Your task to perform on an android device: Go to Reddit.com Image 0: 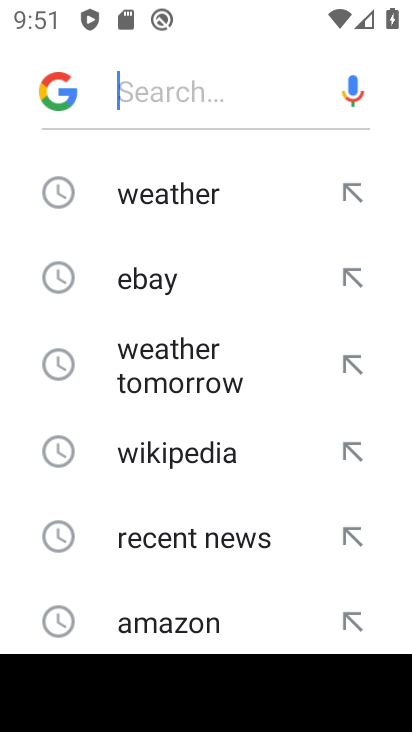
Step 0: press home button
Your task to perform on an android device: Go to Reddit.com Image 1: 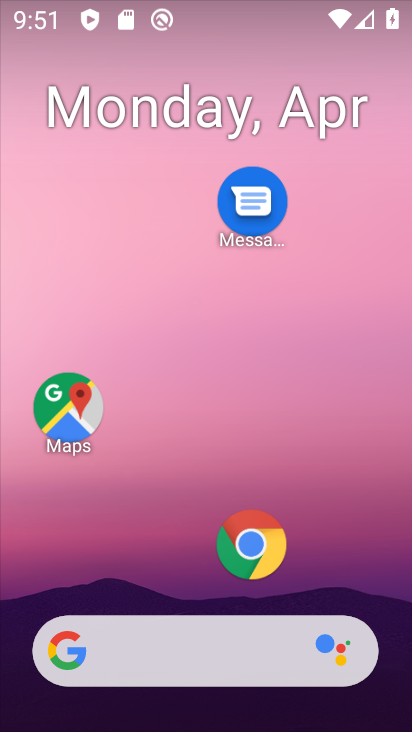
Step 1: drag from (193, 481) to (233, 33)
Your task to perform on an android device: Go to Reddit.com Image 2: 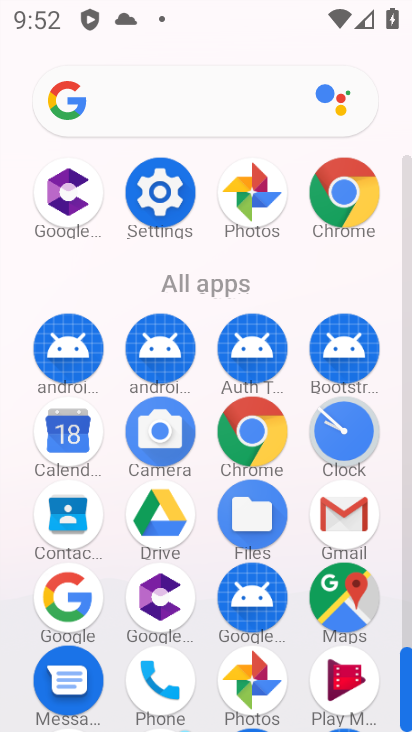
Step 2: click (251, 426)
Your task to perform on an android device: Go to Reddit.com Image 3: 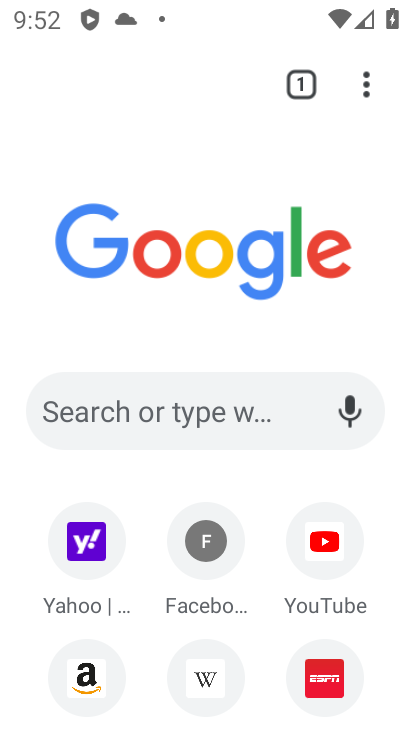
Step 3: drag from (262, 635) to (256, 234)
Your task to perform on an android device: Go to Reddit.com Image 4: 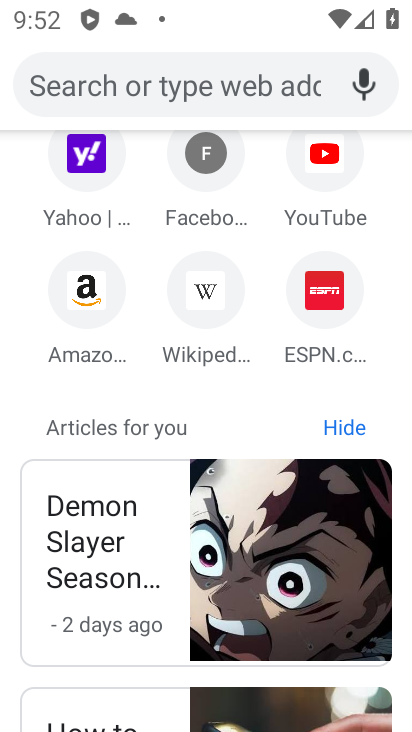
Step 4: drag from (258, 191) to (258, 528)
Your task to perform on an android device: Go to Reddit.com Image 5: 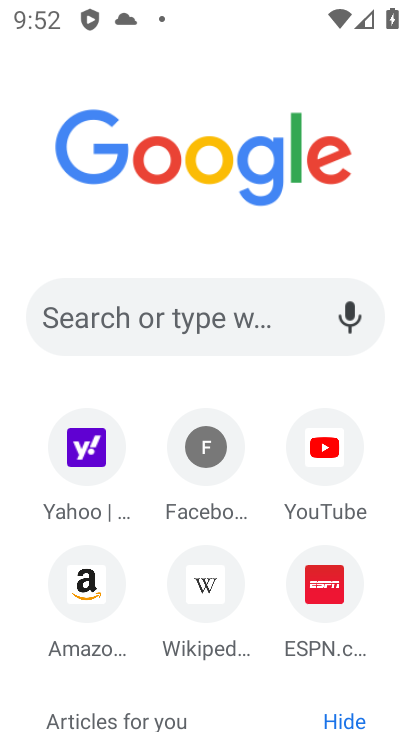
Step 5: click (144, 309)
Your task to perform on an android device: Go to Reddit.com Image 6: 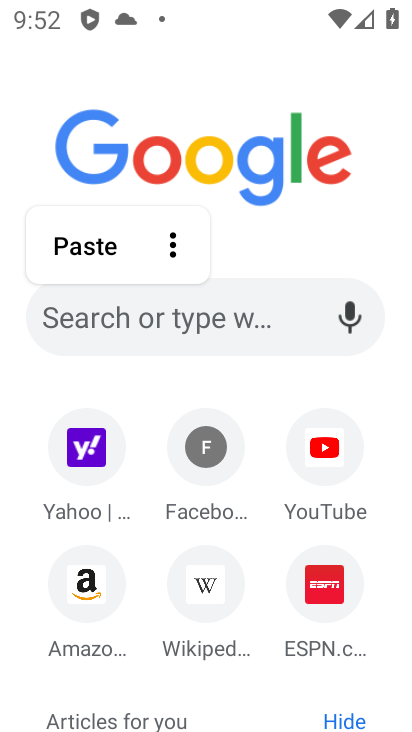
Step 6: type "reddit.com"
Your task to perform on an android device: Go to Reddit.com Image 7: 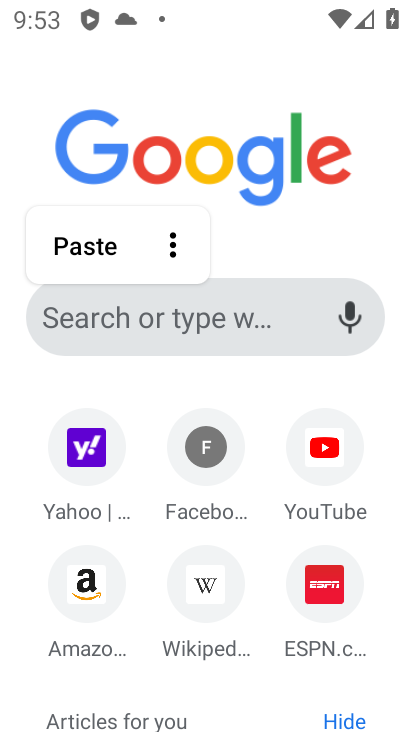
Step 7: click (133, 302)
Your task to perform on an android device: Go to Reddit.com Image 8: 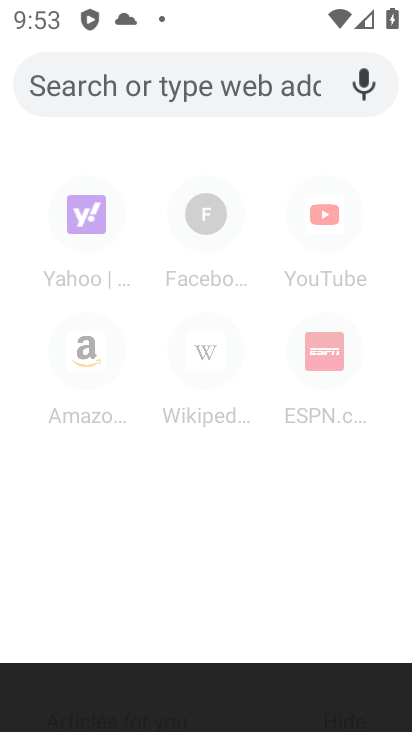
Step 8: click (127, 321)
Your task to perform on an android device: Go to Reddit.com Image 9: 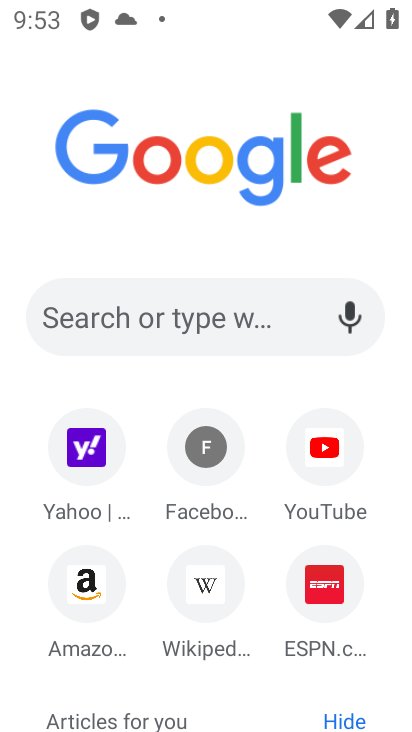
Step 9: click (107, 311)
Your task to perform on an android device: Go to Reddit.com Image 10: 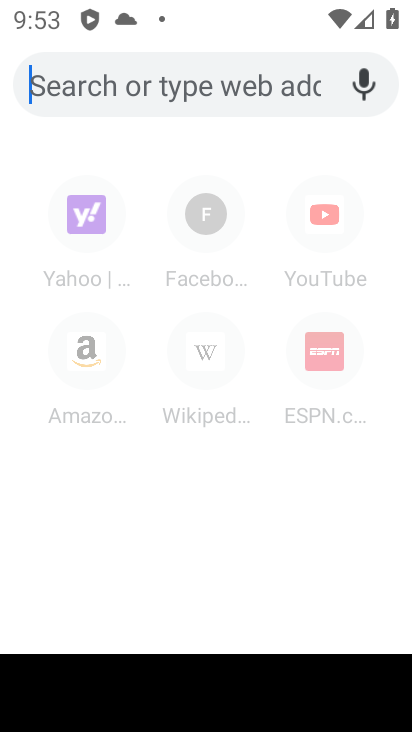
Step 10: type "reddit.com"
Your task to perform on an android device: Go to Reddit.com Image 11: 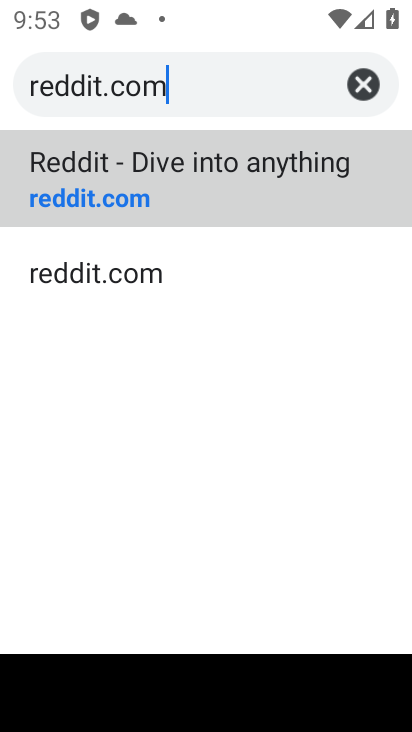
Step 11: click (147, 180)
Your task to perform on an android device: Go to Reddit.com Image 12: 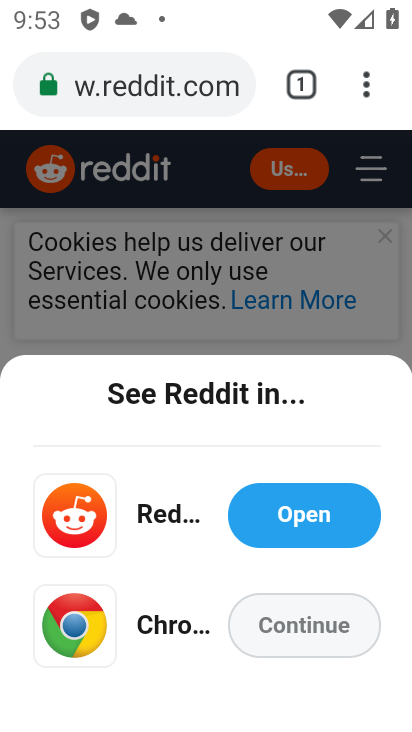
Step 12: click (300, 633)
Your task to perform on an android device: Go to Reddit.com Image 13: 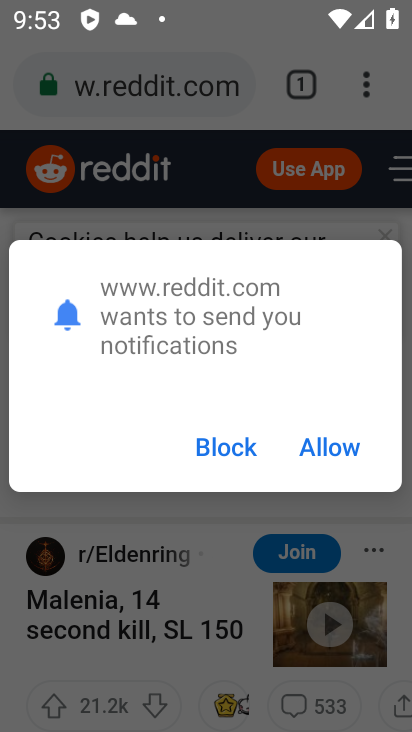
Step 13: click (231, 447)
Your task to perform on an android device: Go to Reddit.com Image 14: 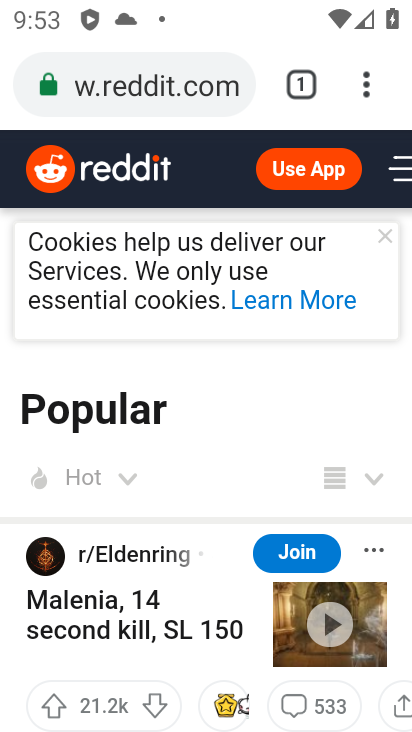
Step 14: task complete